Your task to perform on an android device: Go to Yahoo.com Image 0: 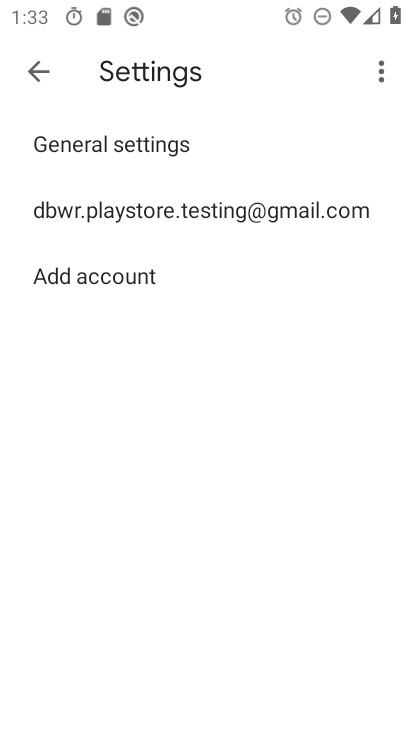
Step 0: press home button
Your task to perform on an android device: Go to Yahoo.com Image 1: 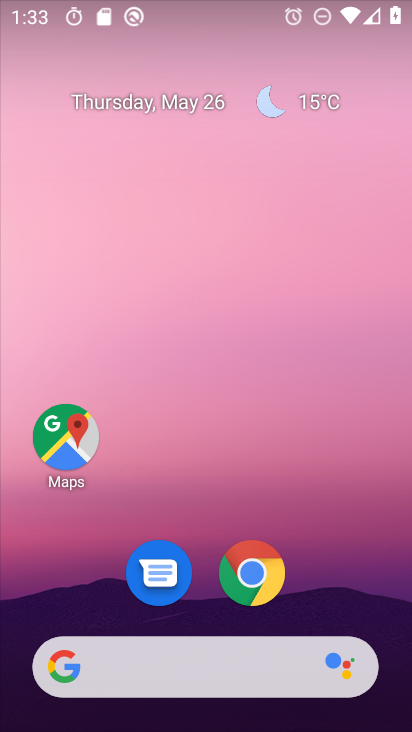
Step 1: click (265, 574)
Your task to perform on an android device: Go to Yahoo.com Image 2: 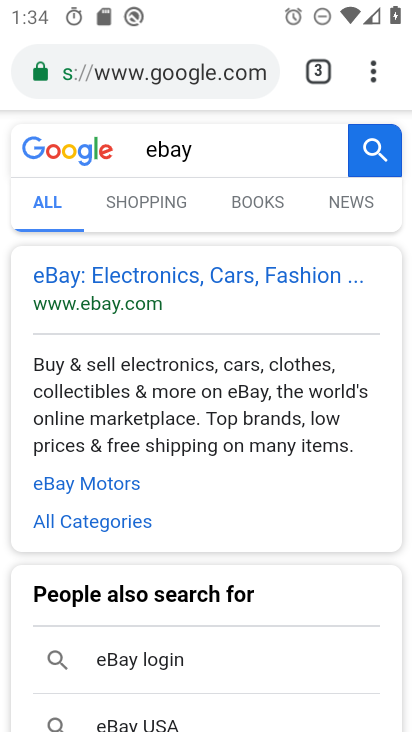
Step 2: click (148, 74)
Your task to perform on an android device: Go to Yahoo.com Image 3: 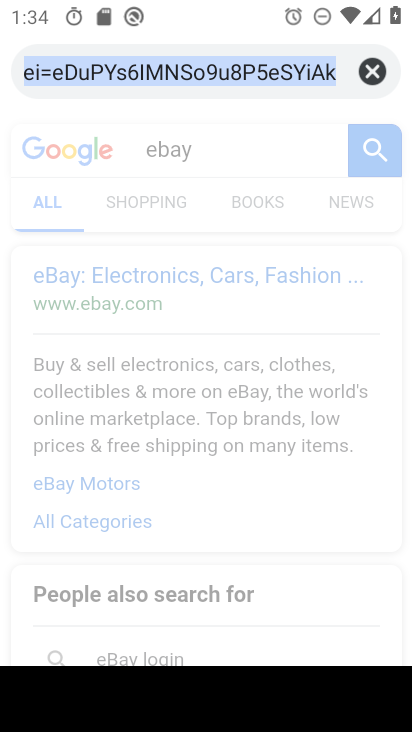
Step 3: click (387, 69)
Your task to perform on an android device: Go to Yahoo.com Image 4: 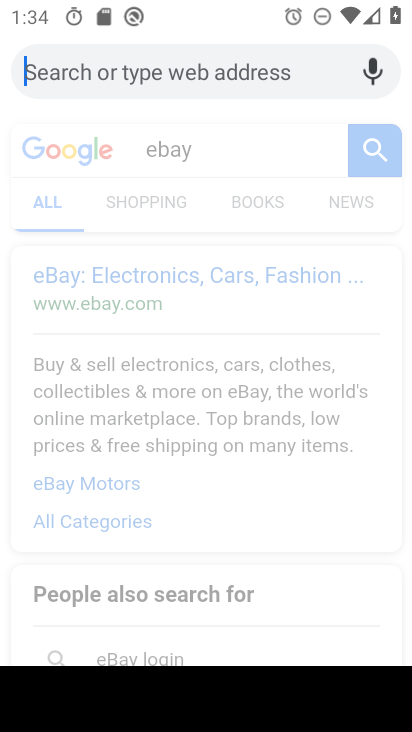
Step 4: type "yahoo.com"
Your task to perform on an android device: Go to Yahoo.com Image 5: 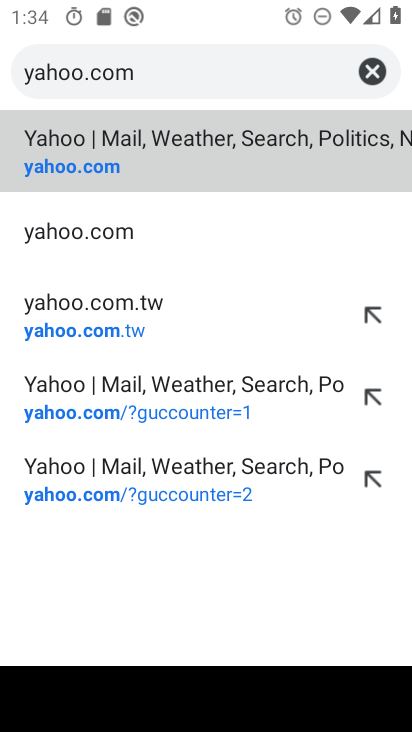
Step 5: click (69, 161)
Your task to perform on an android device: Go to Yahoo.com Image 6: 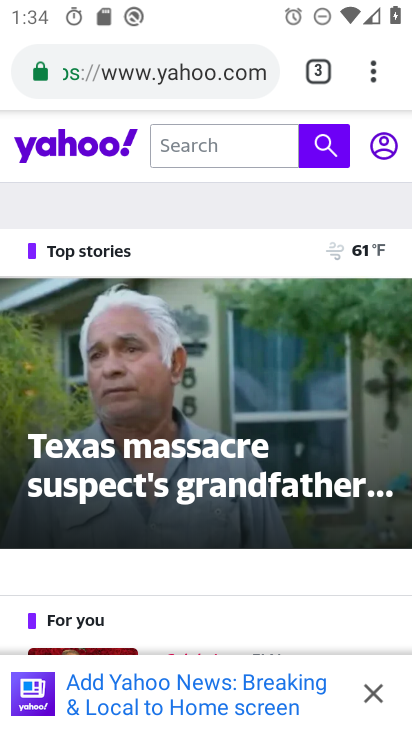
Step 6: task complete